Your task to perform on an android device: Open sound settings Image 0: 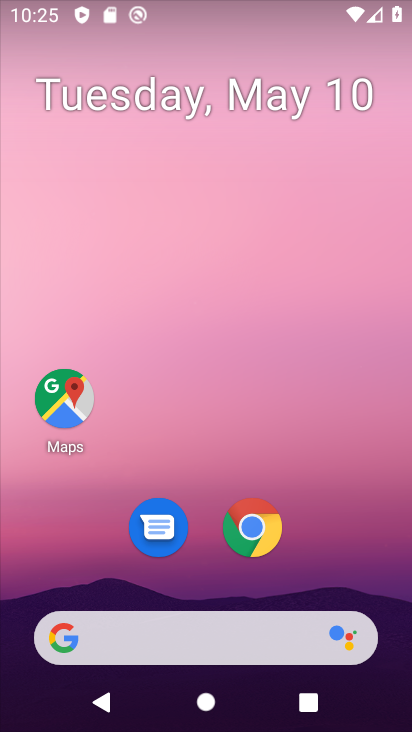
Step 0: drag from (347, 543) to (335, 203)
Your task to perform on an android device: Open sound settings Image 1: 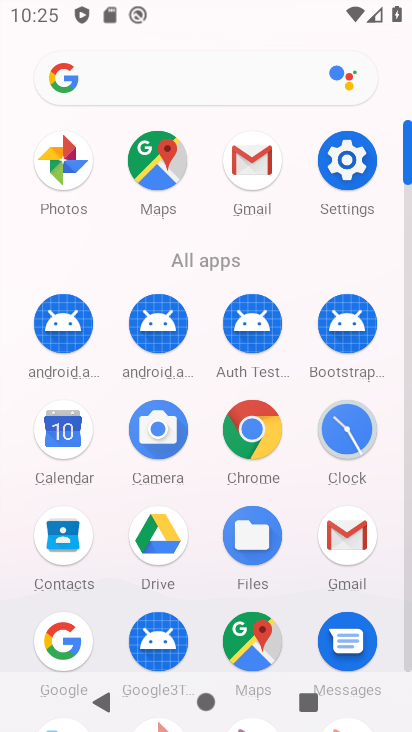
Step 1: click (328, 154)
Your task to perform on an android device: Open sound settings Image 2: 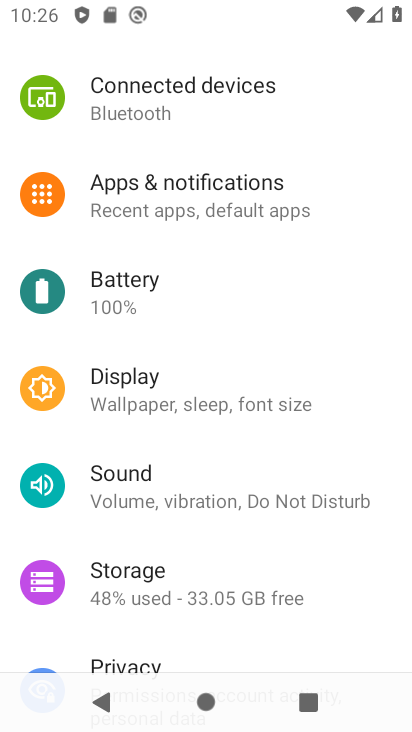
Step 2: click (192, 499)
Your task to perform on an android device: Open sound settings Image 3: 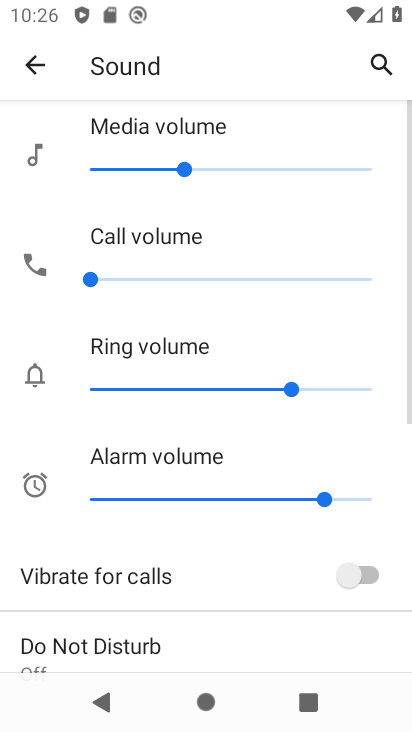
Step 3: task complete